Your task to perform on an android device: Show me the best basketball shoes on Nike.com Image 0: 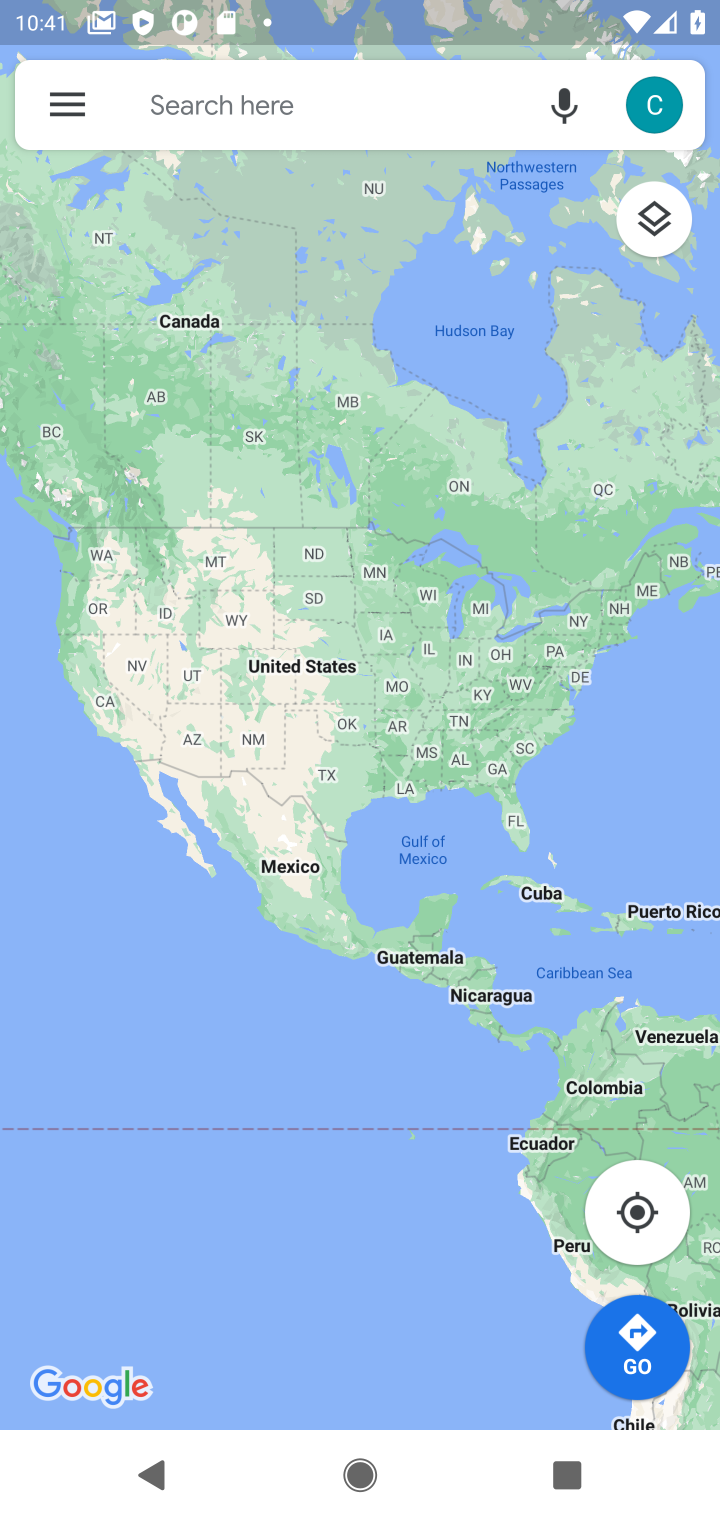
Step 0: press home button
Your task to perform on an android device: Show me the best basketball shoes on Nike.com Image 1: 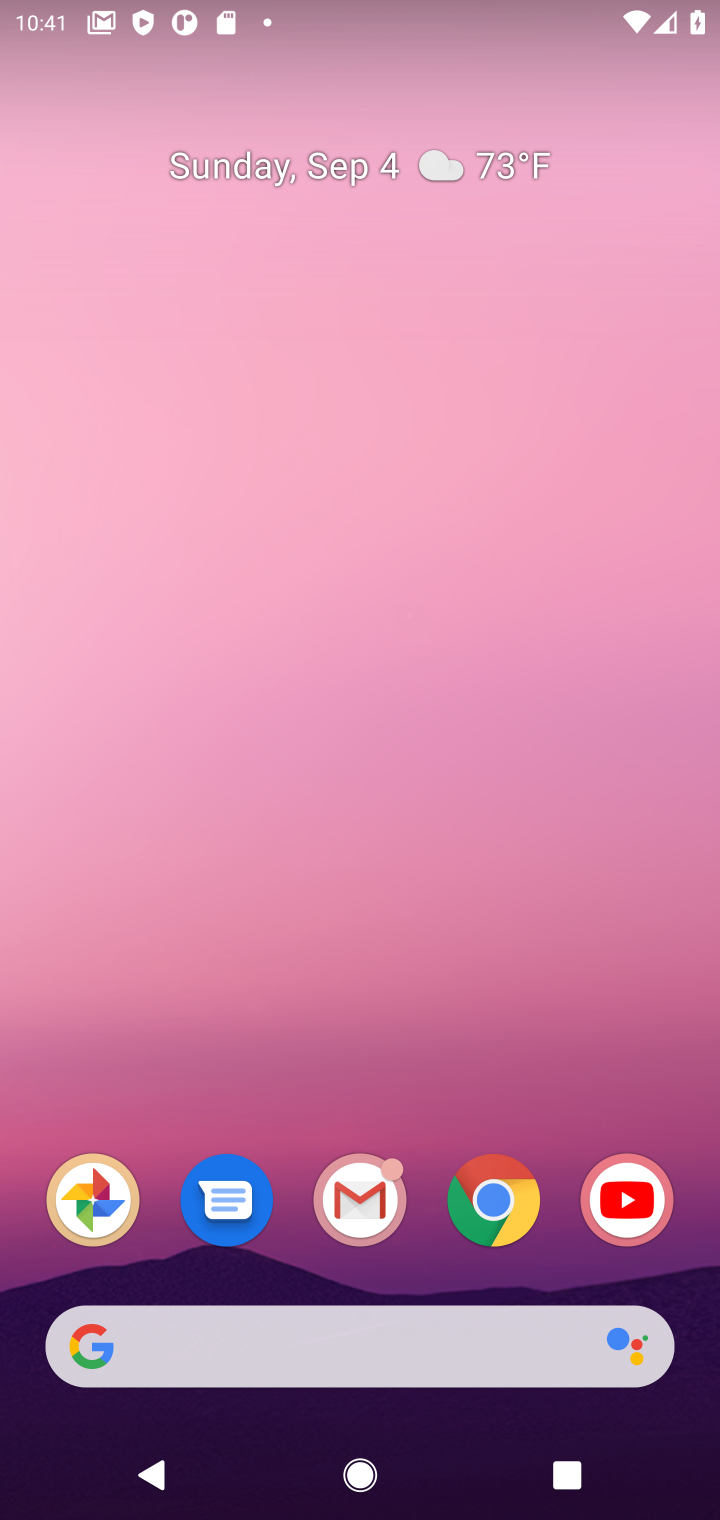
Step 1: click (479, 1216)
Your task to perform on an android device: Show me the best basketball shoes on Nike.com Image 2: 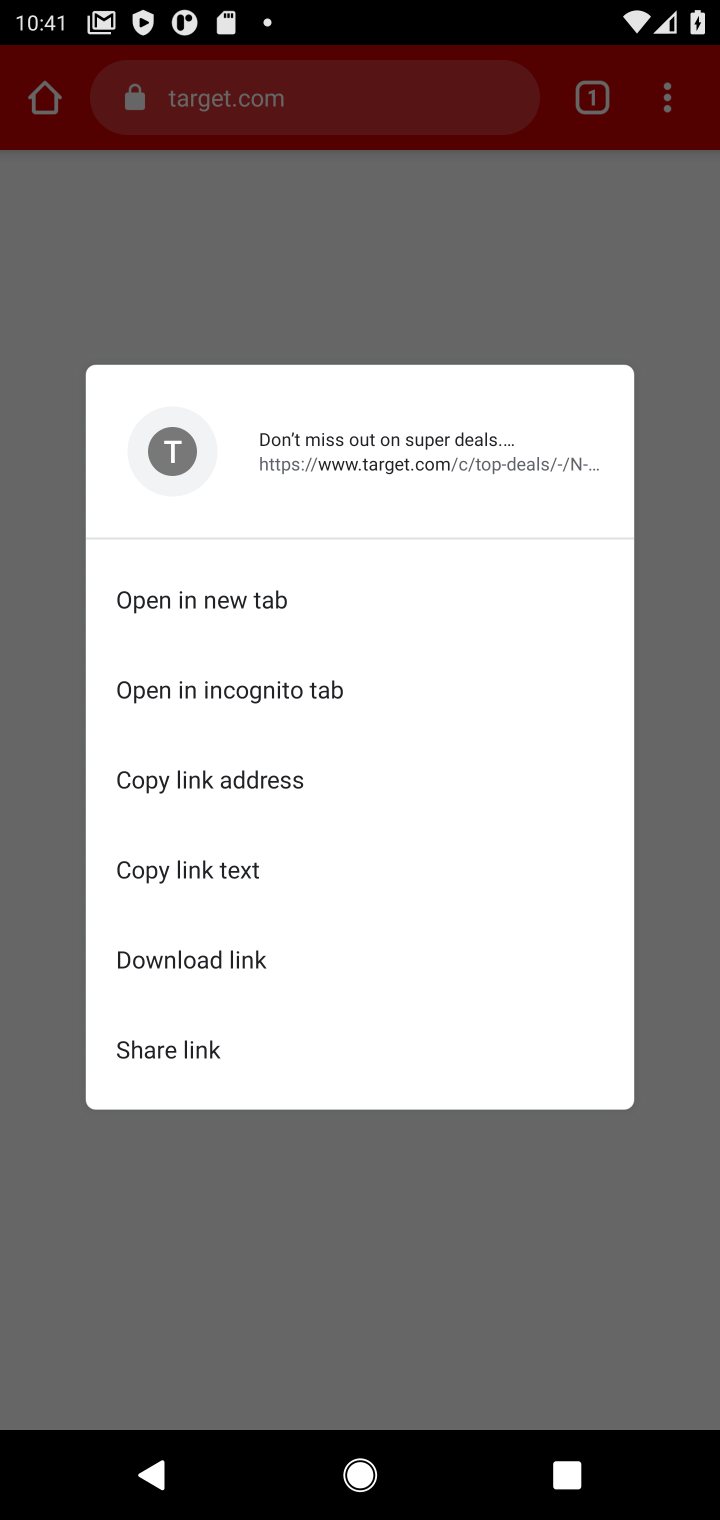
Step 2: press back button
Your task to perform on an android device: Show me the best basketball shoes on Nike.com Image 3: 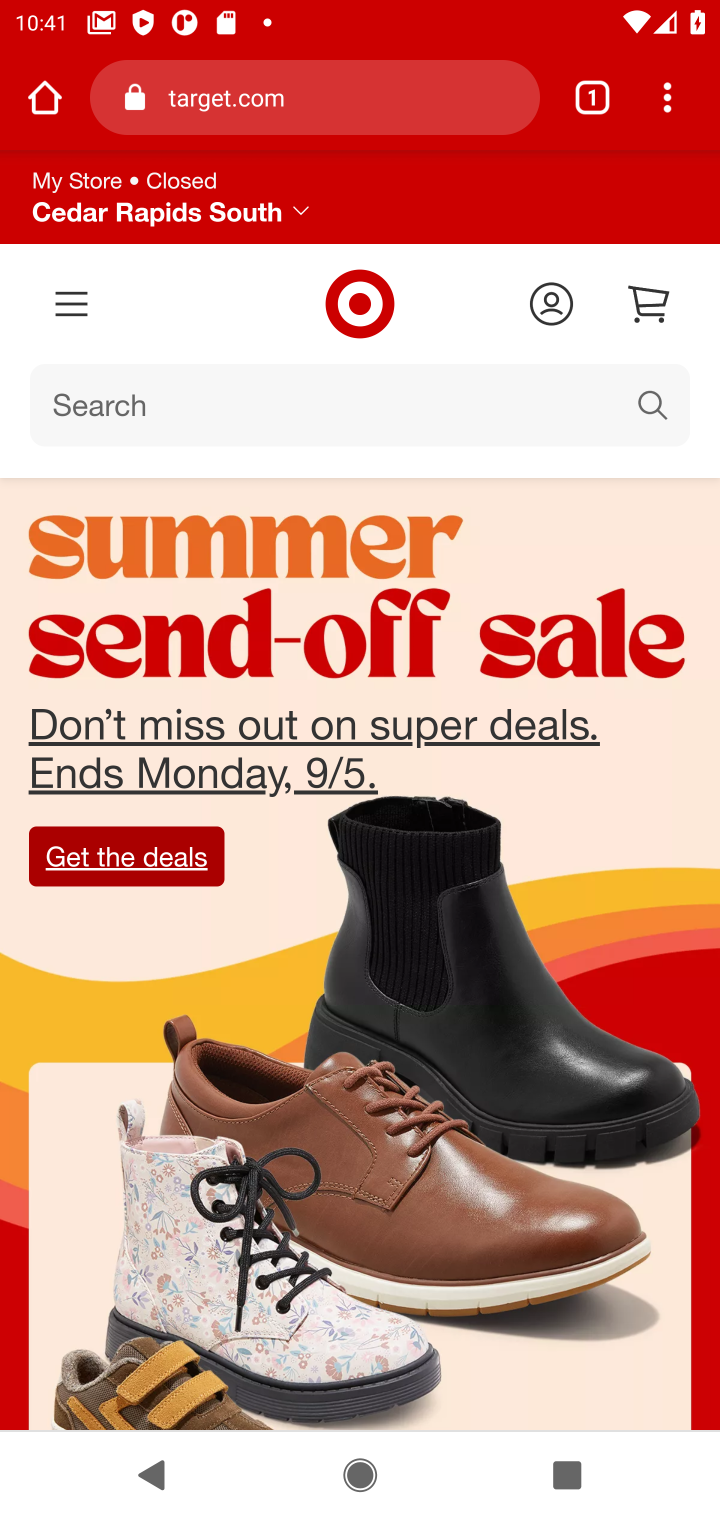
Step 3: click (447, 78)
Your task to perform on an android device: Show me the best basketball shoes on Nike.com Image 4: 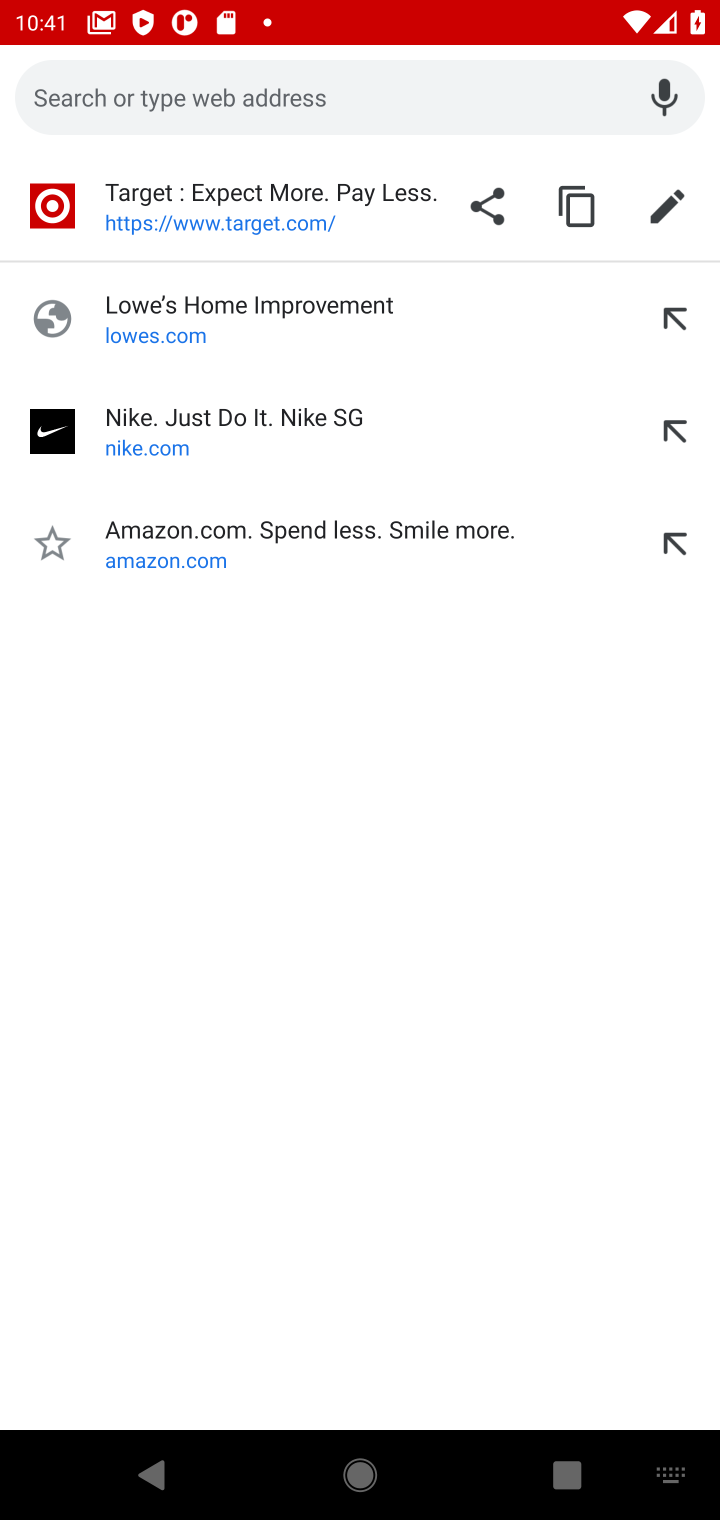
Step 4: click (167, 431)
Your task to perform on an android device: Show me the best basketball shoes on Nike.com Image 5: 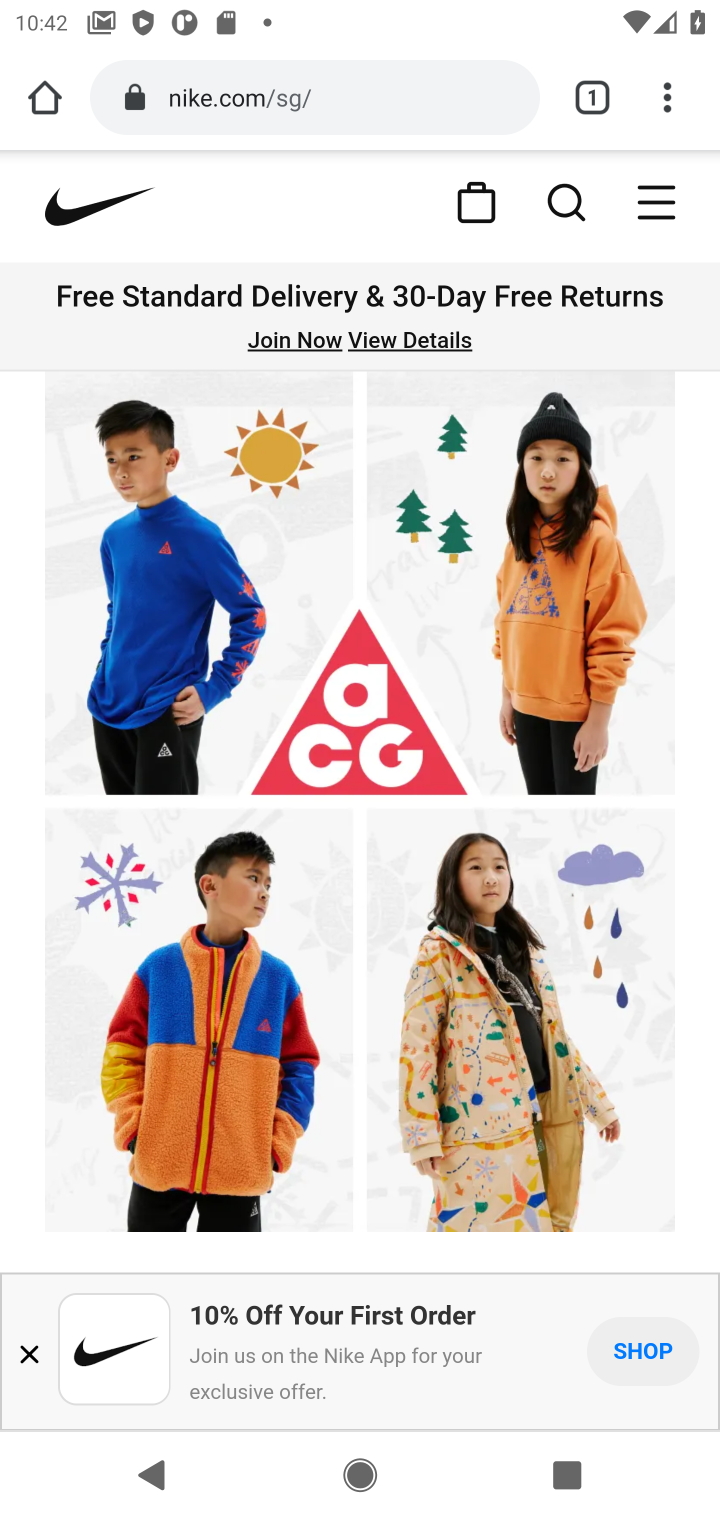
Step 5: click (550, 187)
Your task to perform on an android device: Show me the best basketball shoes on Nike.com Image 6: 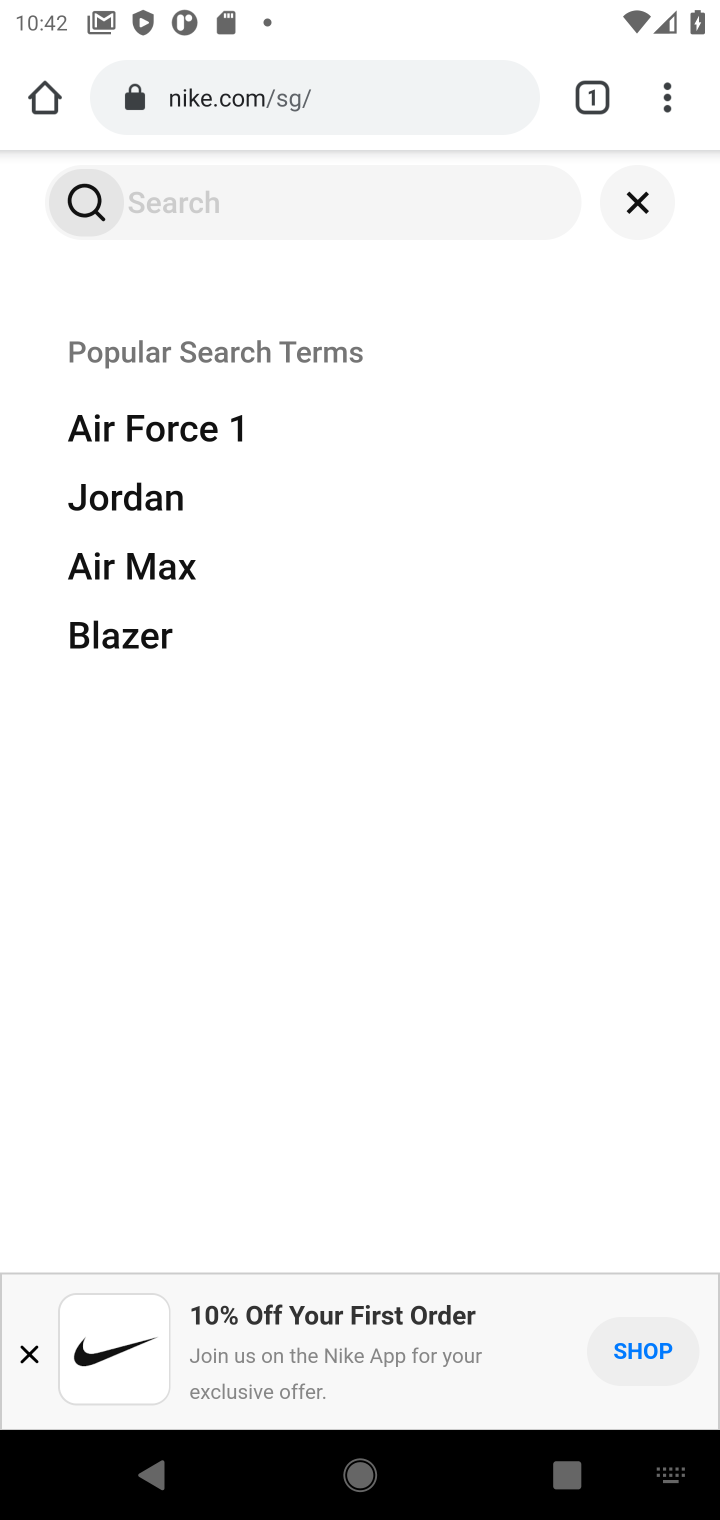
Step 6: type "best basketball shoes"
Your task to perform on an android device: Show me the best basketball shoes on Nike.com Image 7: 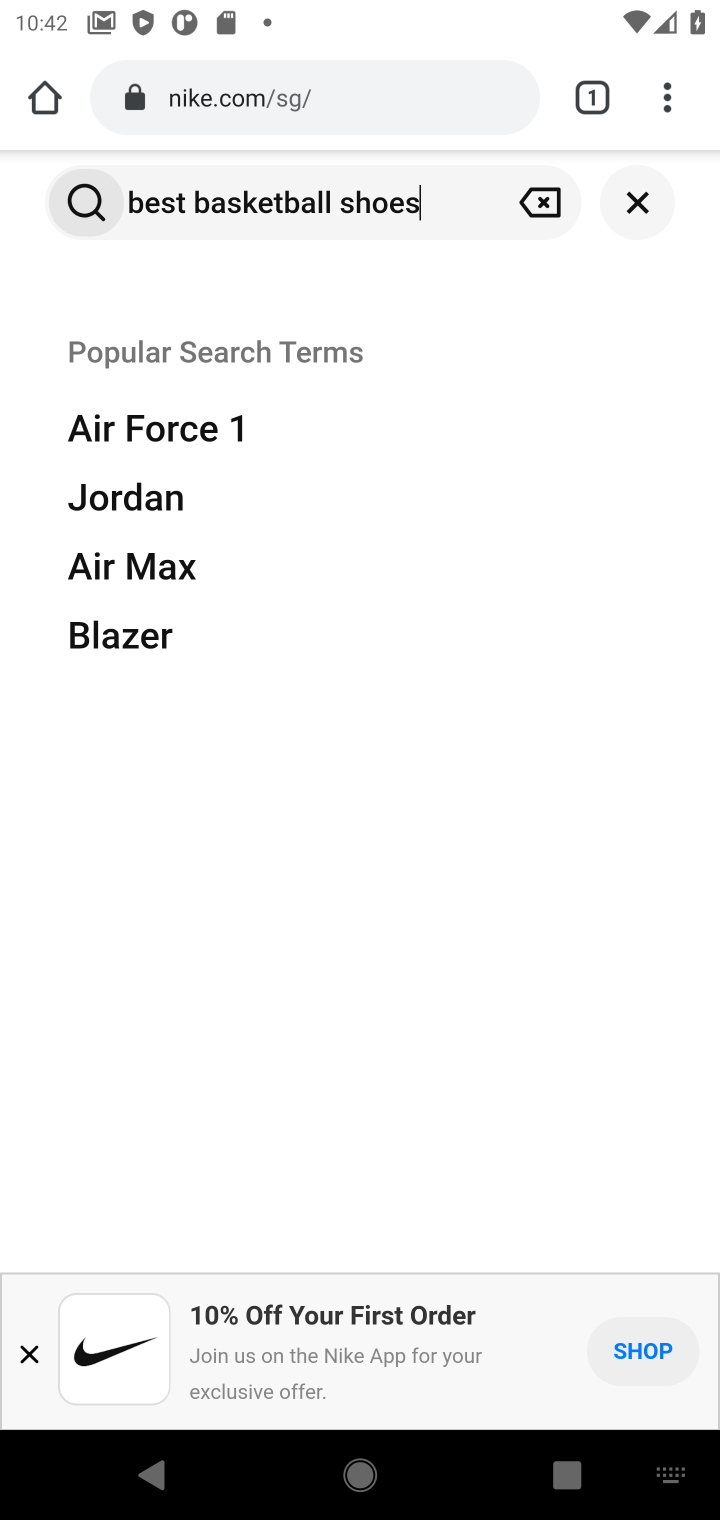
Step 7: click (98, 192)
Your task to perform on an android device: Show me the best basketball shoes on Nike.com Image 8: 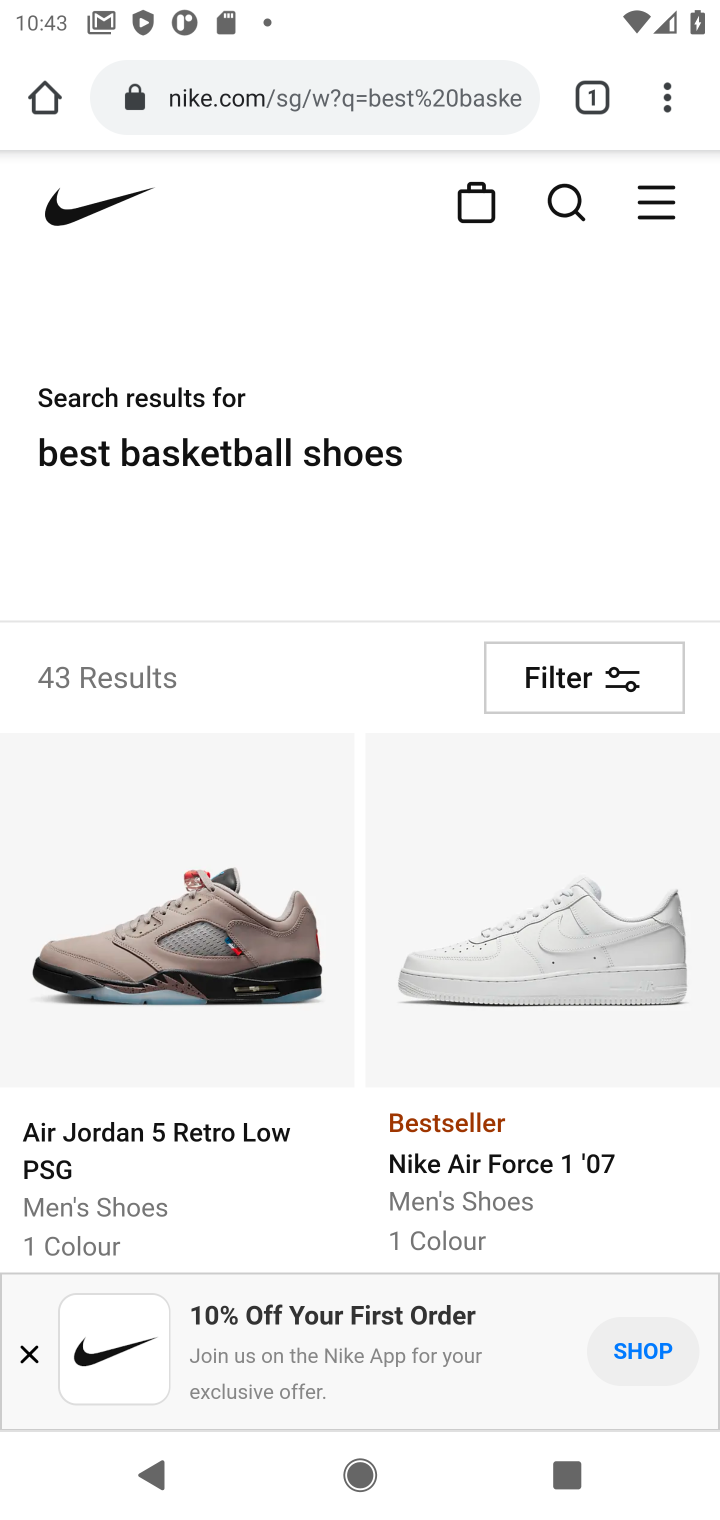
Step 8: task complete